Your task to perform on an android device: Open Chrome and go to the settings page Image 0: 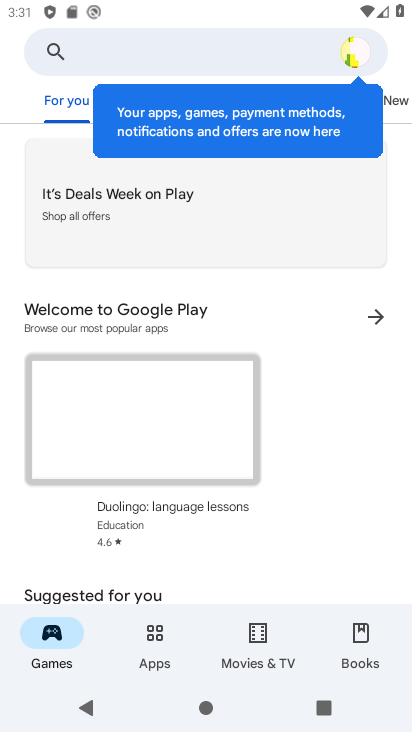
Step 0: press home button
Your task to perform on an android device: Open Chrome and go to the settings page Image 1: 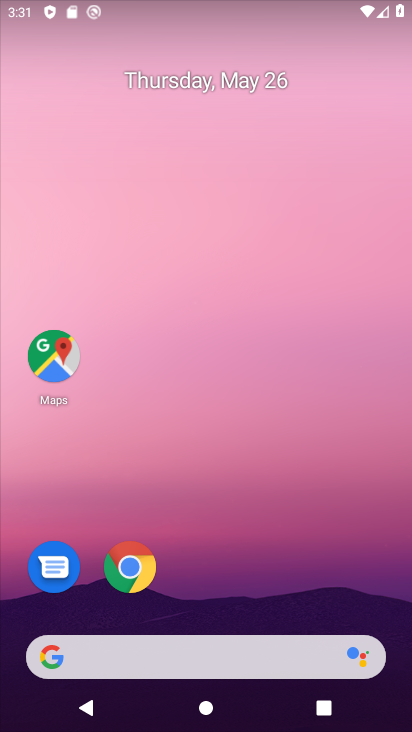
Step 1: click (128, 573)
Your task to perform on an android device: Open Chrome and go to the settings page Image 2: 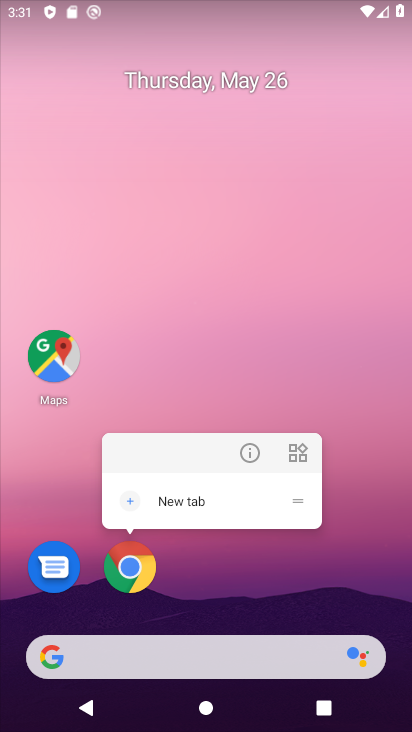
Step 2: click (130, 570)
Your task to perform on an android device: Open Chrome and go to the settings page Image 3: 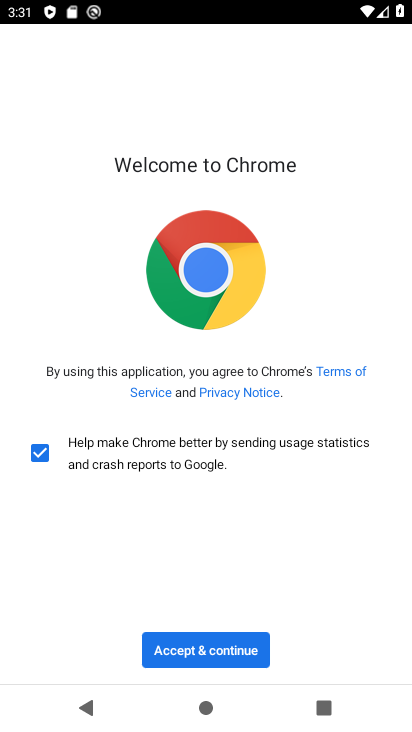
Step 3: click (219, 647)
Your task to perform on an android device: Open Chrome and go to the settings page Image 4: 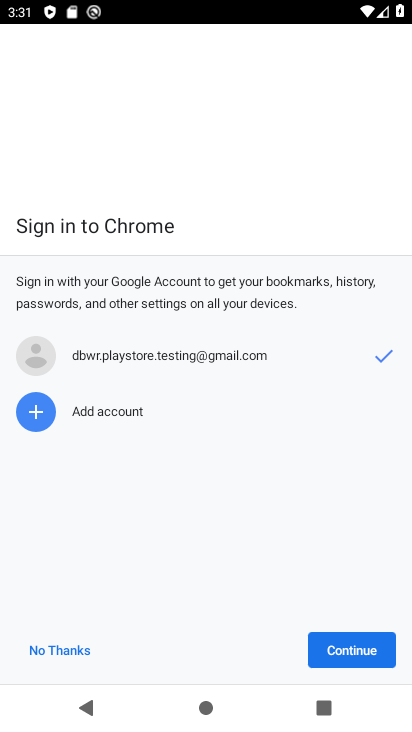
Step 4: click (376, 652)
Your task to perform on an android device: Open Chrome and go to the settings page Image 5: 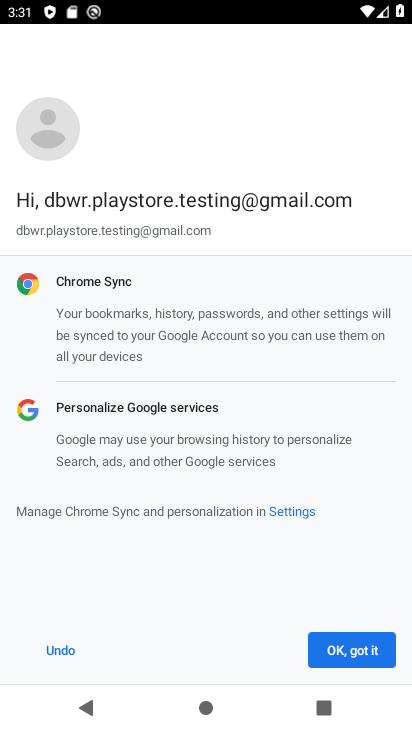
Step 5: click (376, 652)
Your task to perform on an android device: Open Chrome and go to the settings page Image 6: 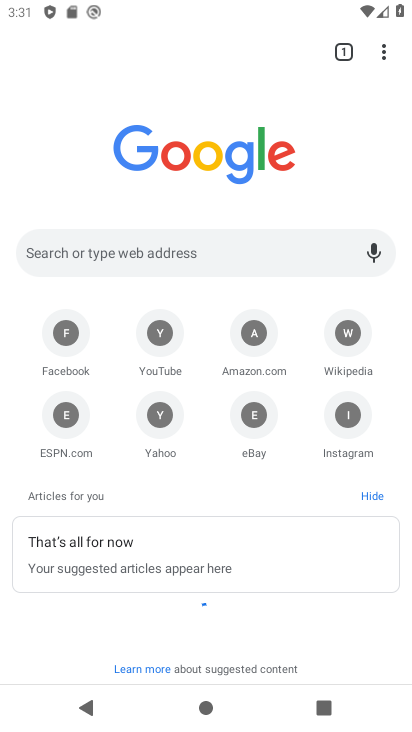
Step 6: task complete